Your task to perform on an android device: change notification settings in the gmail app Image 0: 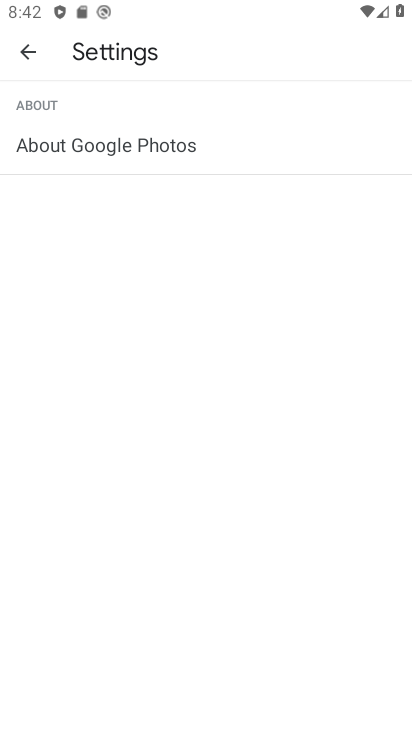
Step 0: press home button
Your task to perform on an android device: change notification settings in the gmail app Image 1: 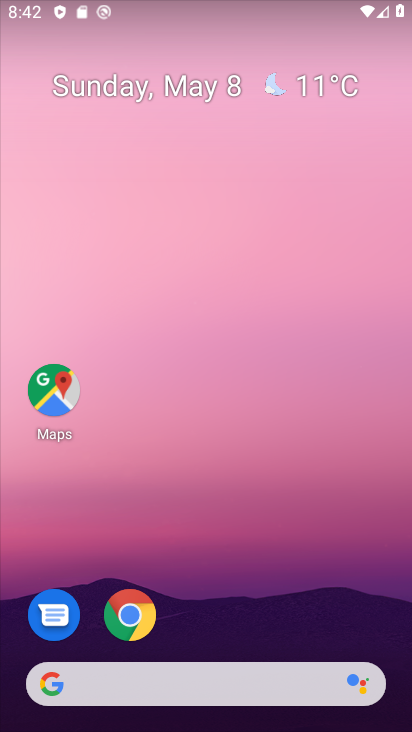
Step 1: drag from (350, 608) to (324, 95)
Your task to perform on an android device: change notification settings in the gmail app Image 2: 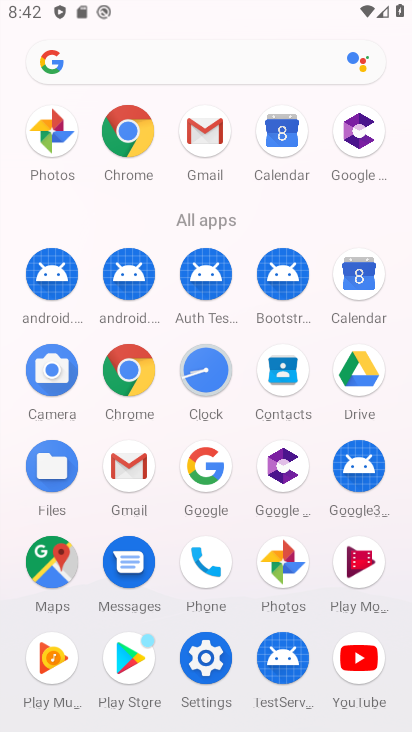
Step 2: click (114, 466)
Your task to perform on an android device: change notification settings in the gmail app Image 3: 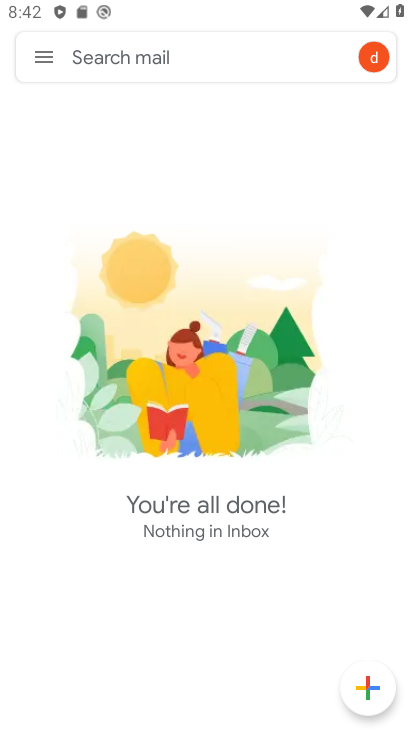
Step 3: click (41, 38)
Your task to perform on an android device: change notification settings in the gmail app Image 4: 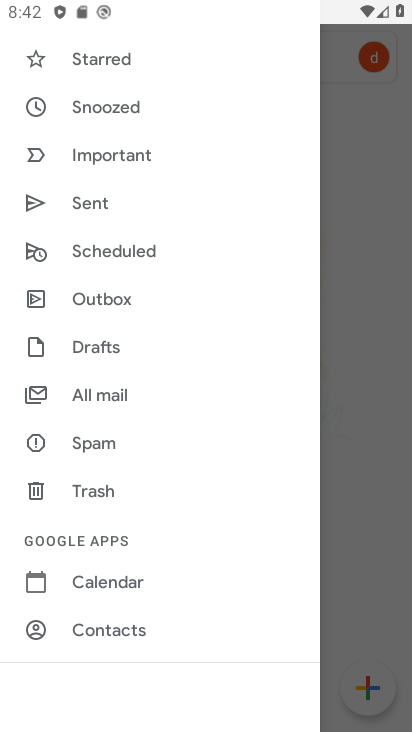
Step 4: drag from (130, 603) to (197, 202)
Your task to perform on an android device: change notification settings in the gmail app Image 5: 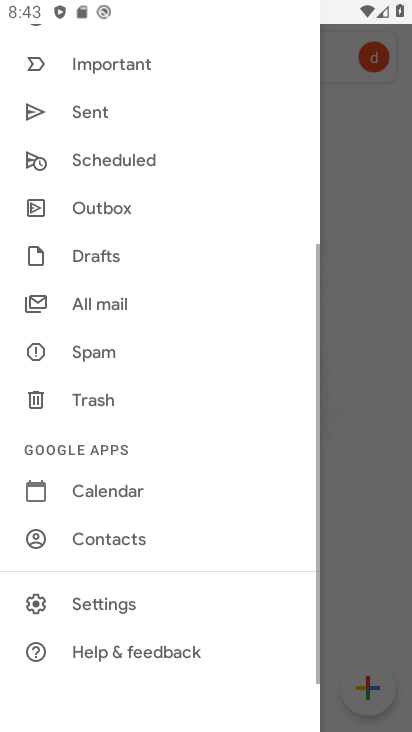
Step 5: click (92, 611)
Your task to perform on an android device: change notification settings in the gmail app Image 6: 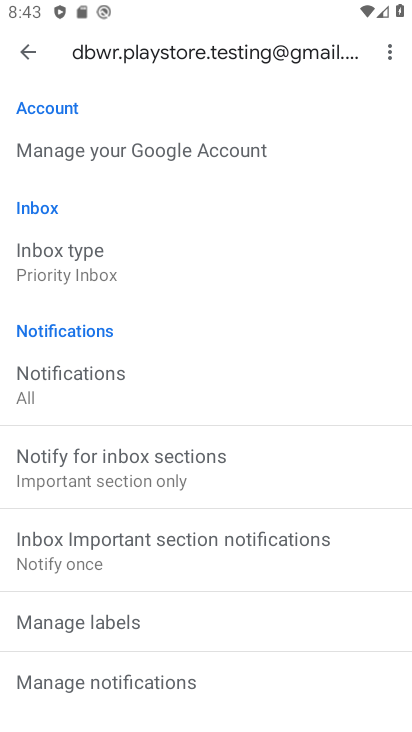
Step 6: drag from (281, 618) to (362, 184)
Your task to perform on an android device: change notification settings in the gmail app Image 7: 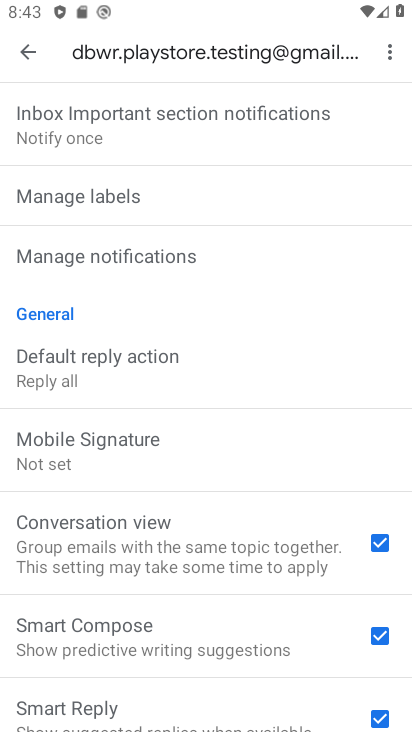
Step 7: click (170, 262)
Your task to perform on an android device: change notification settings in the gmail app Image 8: 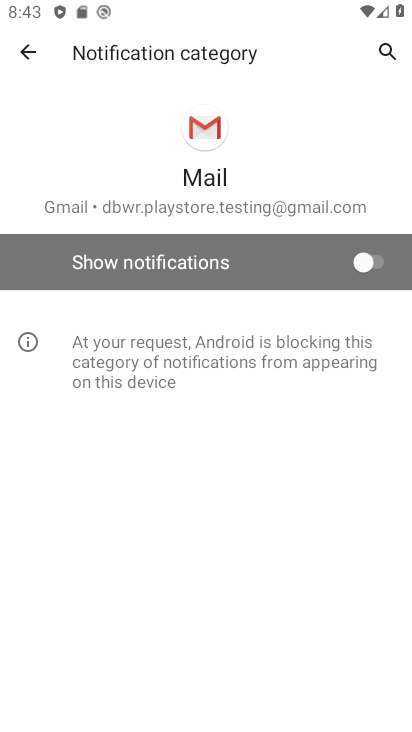
Step 8: click (342, 249)
Your task to perform on an android device: change notification settings in the gmail app Image 9: 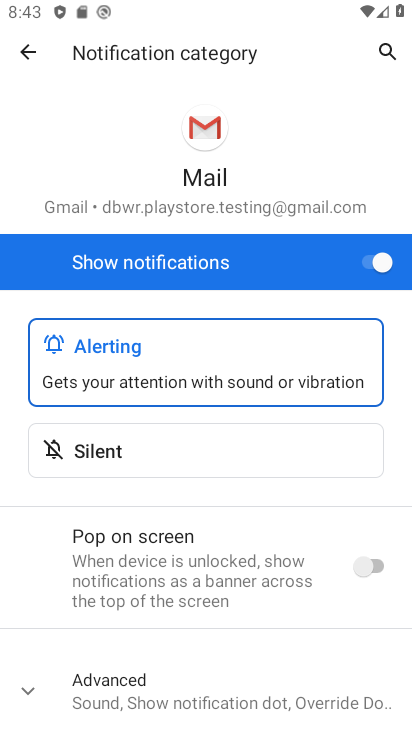
Step 9: task complete